Your task to perform on an android device: turn pop-ups off in chrome Image 0: 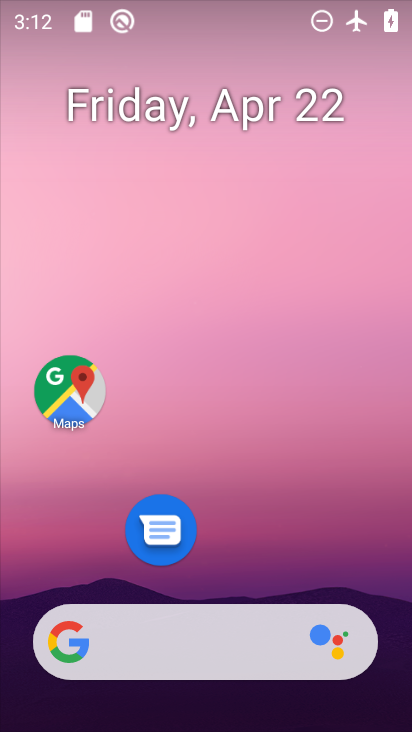
Step 0: drag from (251, 553) to (218, 34)
Your task to perform on an android device: turn pop-ups off in chrome Image 1: 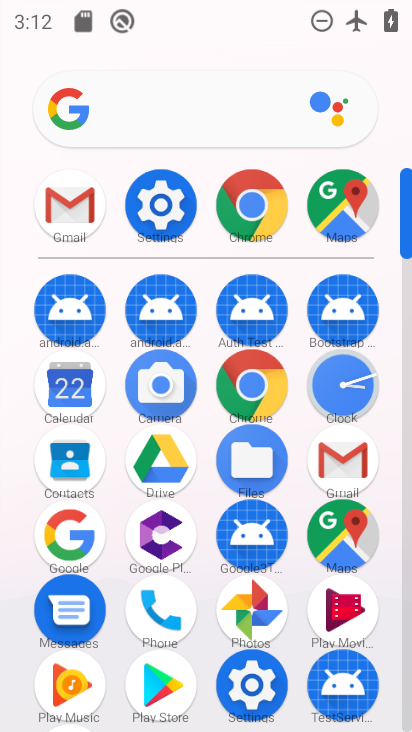
Step 1: click (243, 204)
Your task to perform on an android device: turn pop-ups off in chrome Image 2: 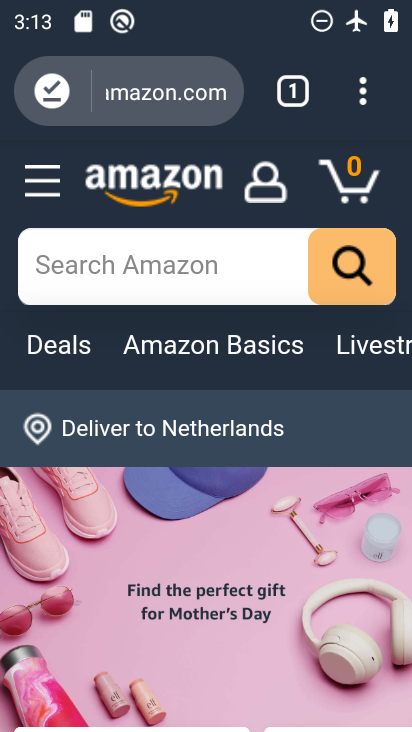
Step 2: click (360, 106)
Your task to perform on an android device: turn pop-ups off in chrome Image 3: 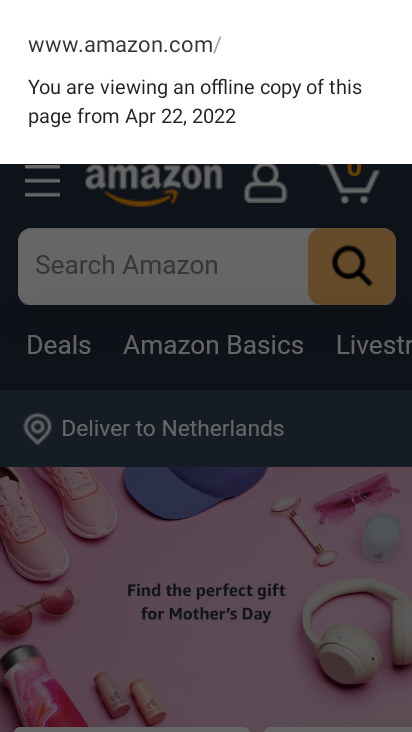
Step 3: click (316, 181)
Your task to perform on an android device: turn pop-ups off in chrome Image 4: 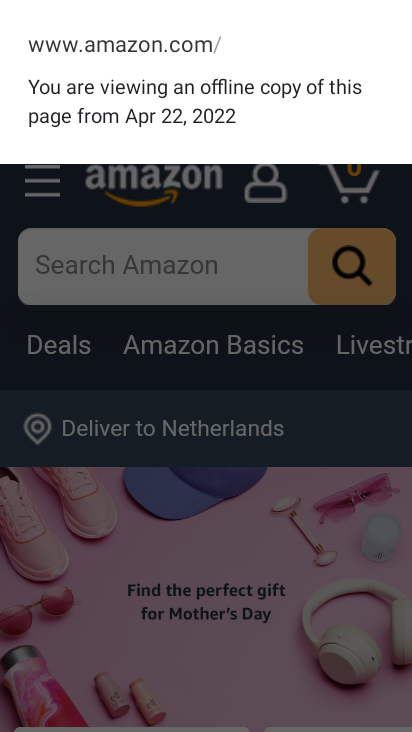
Step 4: click (301, 194)
Your task to perform on an android device: turn pop-ups off in chrome Image 5: 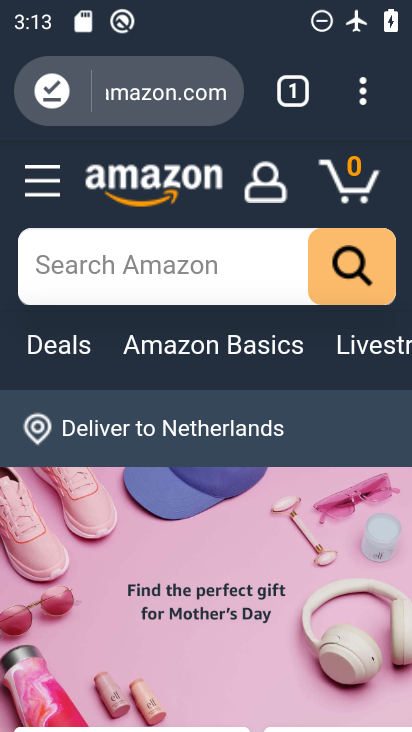
Step 5: click (360, 103)
Your task to perform on an android device: turn pop-ups off in chrome Image 6: 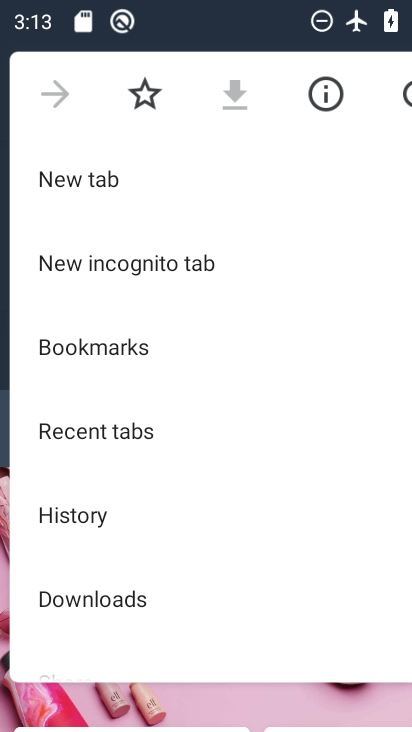
Step 6: drag from (149, 552) to (176, 50)
Your task to perform on an android device: turn pop-ups off in chrome Image 7: 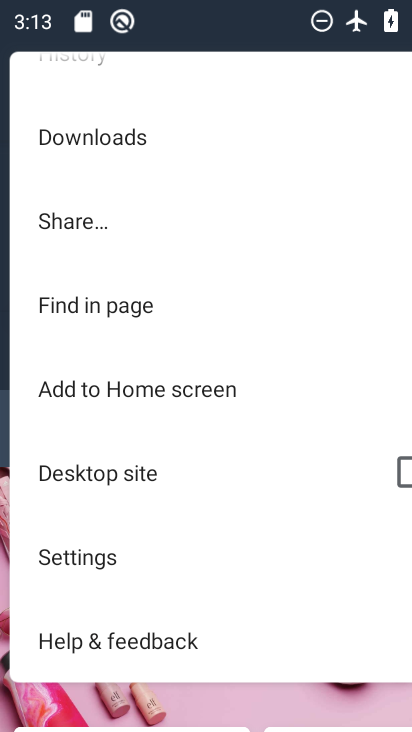
Step 7: drag from (154, 540) to (152, 297)
Your task to perform on an android device: turn pop-ups off in chrome Image 8: 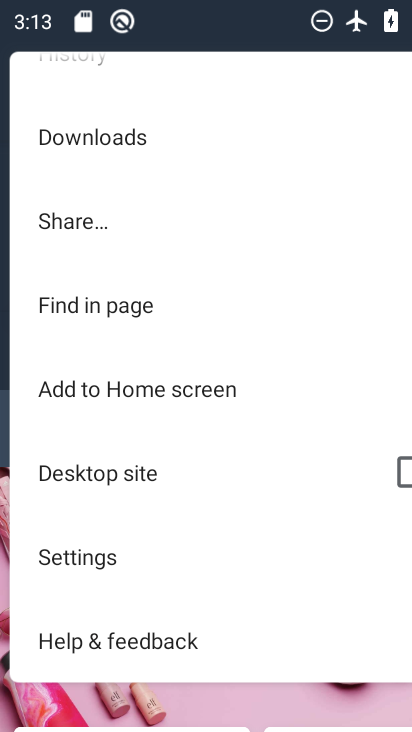
Step 8: click (79, 555)
Your task to perform on an android device: turn pop-ups off in chrome Image 9: 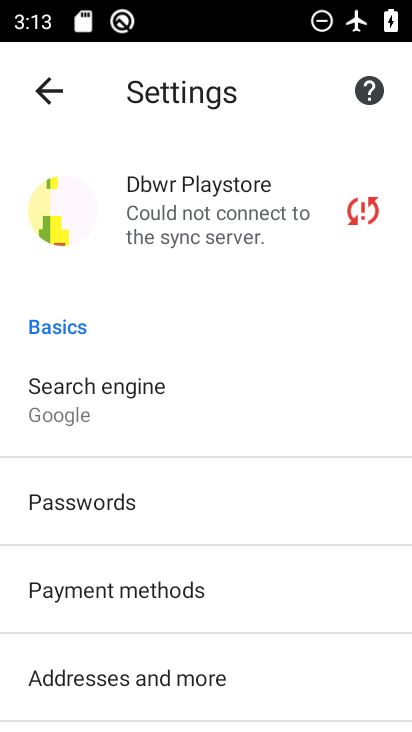
Step 9: drag from (196, 560) to (155, 153)
Your task to perform on an android device: turn pop-ups off in chrome Image 10: 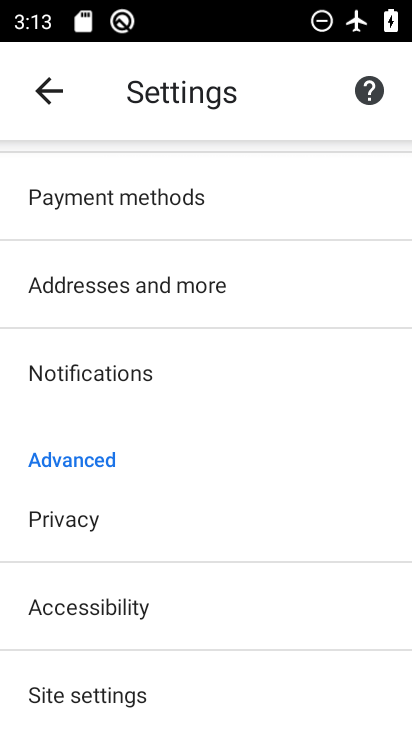
Step 10: drag from (221, 540) to (161, 187)
Your task to perform on an android device: turn pop-ups off in chrome Image 11: 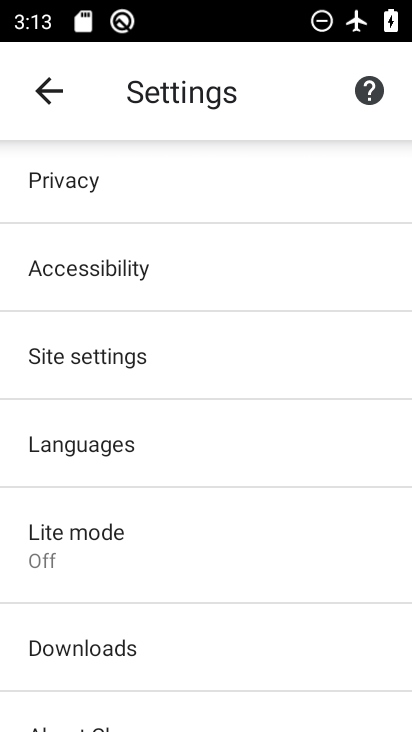
Step 11: click (88, 354)
Your task to perform on an android device: turn pop-ups off in chrome Image 12: 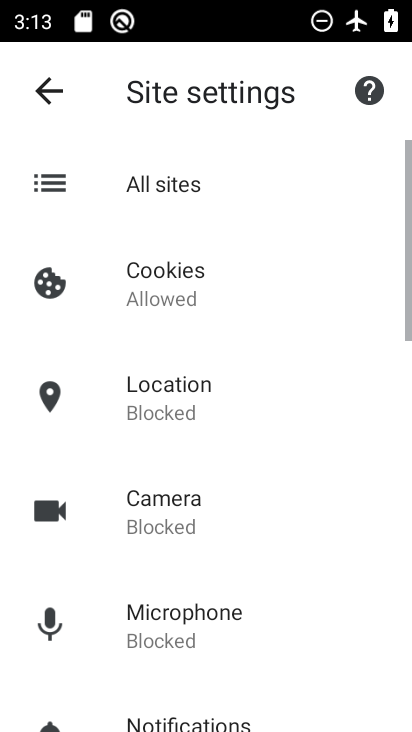
Step 12: drag from (188, 539) to (193, 266)
Your task to perform on an android device: turn pop-ups off in chrome Image 13: 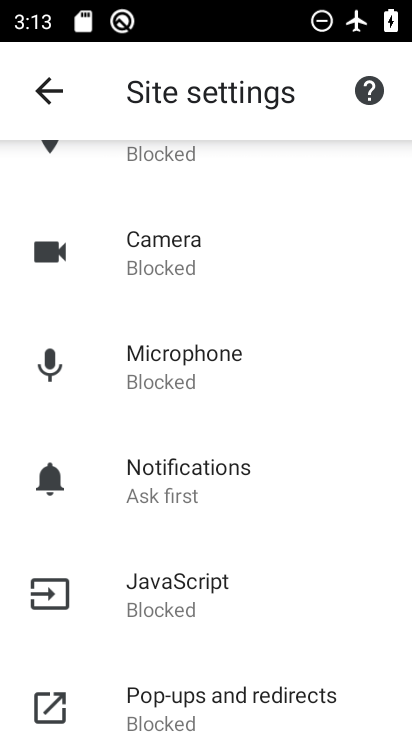
Step 13: drag from (200, 601) to (193, 292)
Your task to perform on an android device: turn pop-ups off in chrome Image 14: 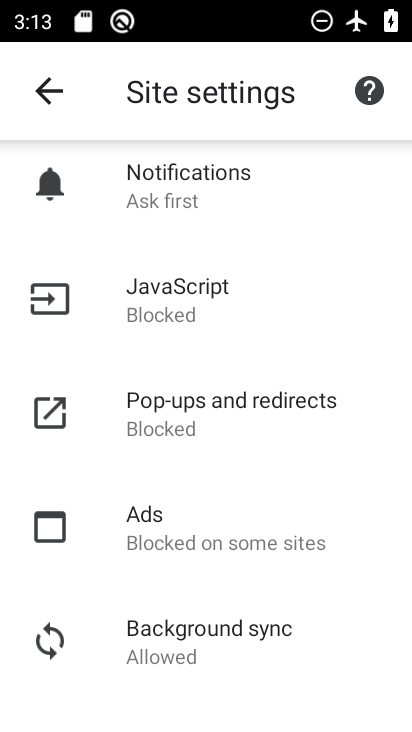
Step 14: click (184, 409)
Your task to perform on an android device: turn pop-ups off in chrome Image 15: 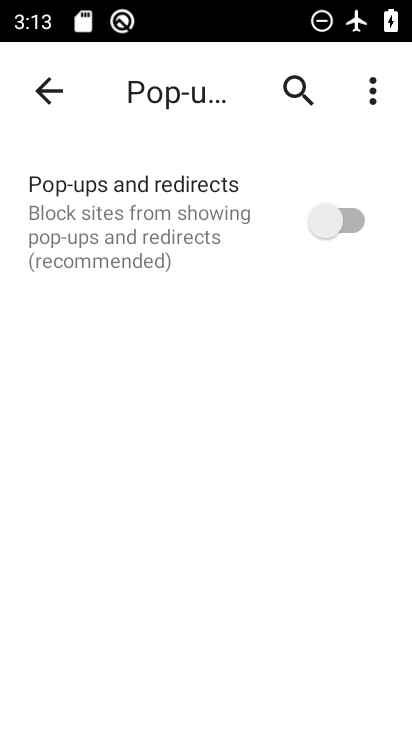
Step 15: task complete